Your task to perform on an android device: Go to battery settings Image 0: 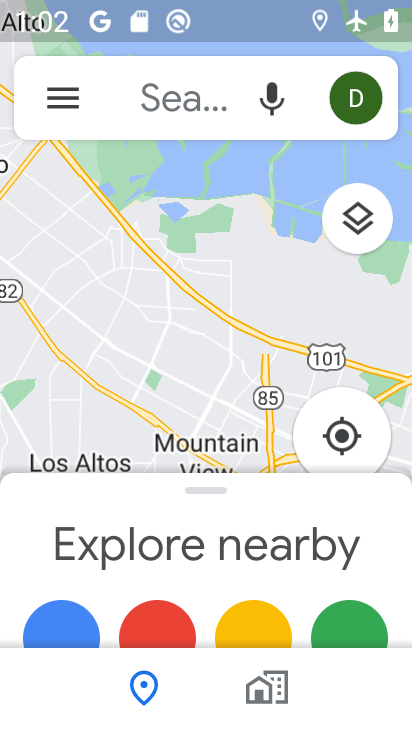
Step 0: press home button
Your task to perform on an android device: Go to battery settings Image 1: 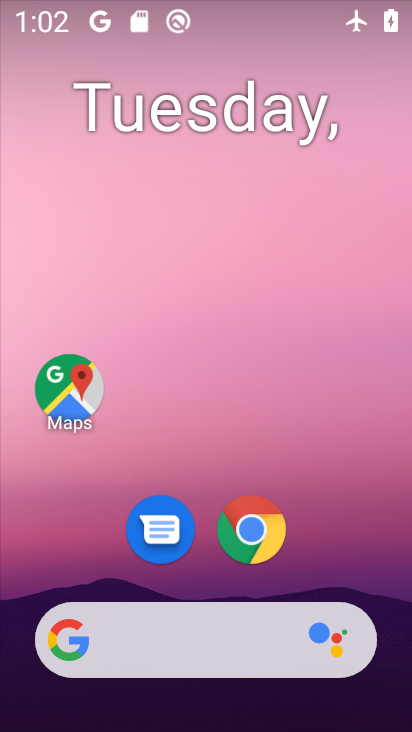
Step 1: drag from (340, 205) to (319, 114)
Your task to perform on an android device: Go to battery settings Image 2: 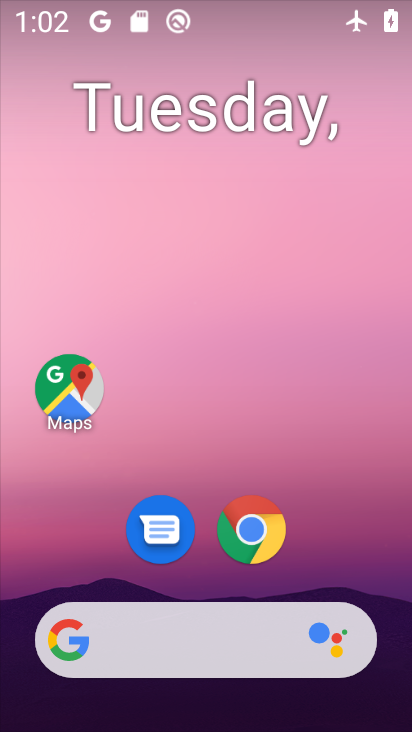
Step 2: drag from (379, 533) to (371, 60)
Your task to perform on an android device: Go to battery settings Image 3: 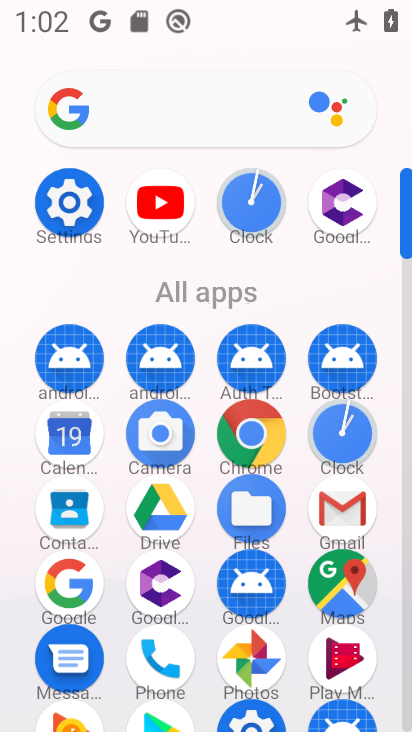
Step 3: click (78, 195)
Your task to perform on an android device: Go to battery settings Image 4: 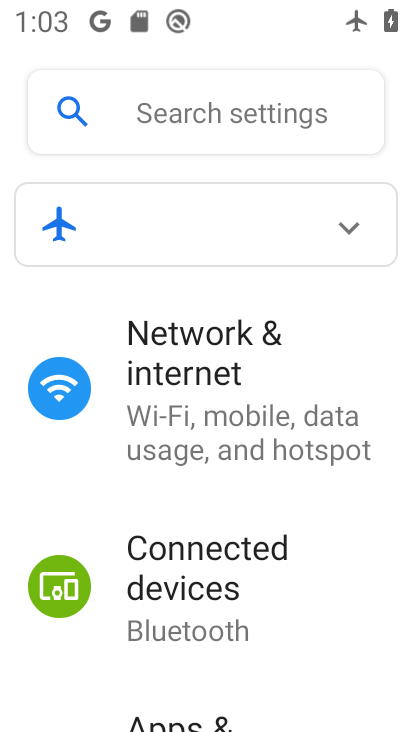
Step 4: click (335, 306)
Your task to perform on an android device: Go to battery settings Image 5: 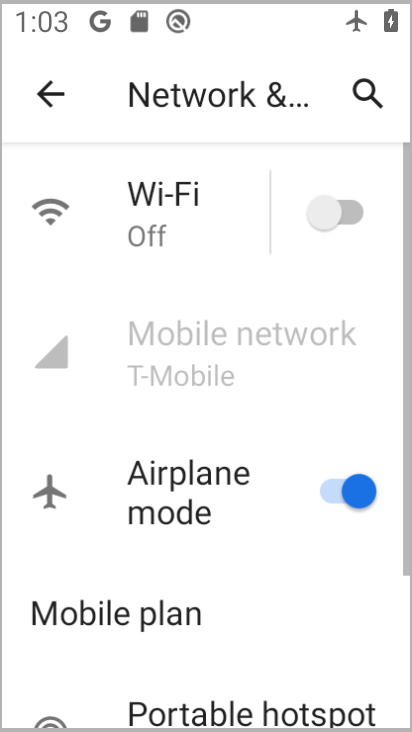
Step 5: drag from (312, 649) to (289, 208)
Your task to perform on an android device: Go to battery settings Image 6: 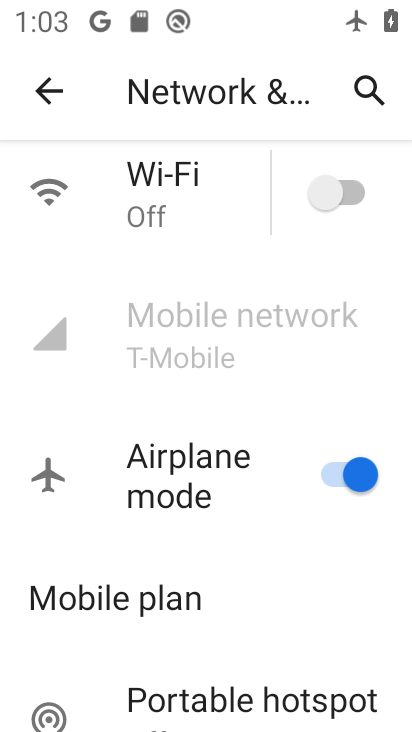
Step 6: click (48, 83)
Your task to perform on an android device: Go to battery settings Image 7: 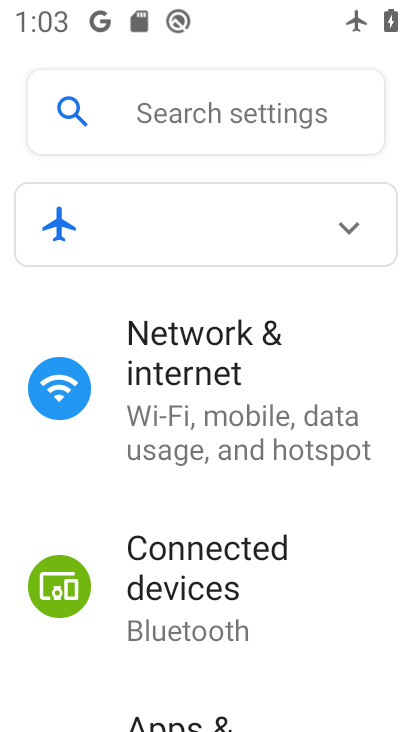
Step 7: drag from (321, 604) to (306, 288)
Your task to perform on an android device: Go to battery settings Image 8: 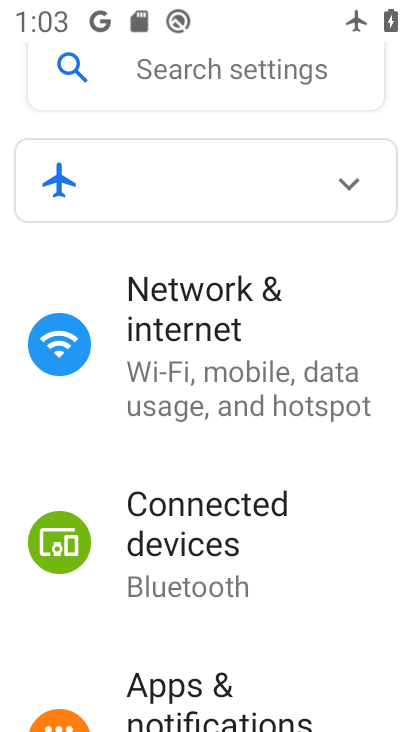
Step 8: drag from (315, 676) to (317, 247)
Your task to perform on an android device: Go to battery settings Image 9: 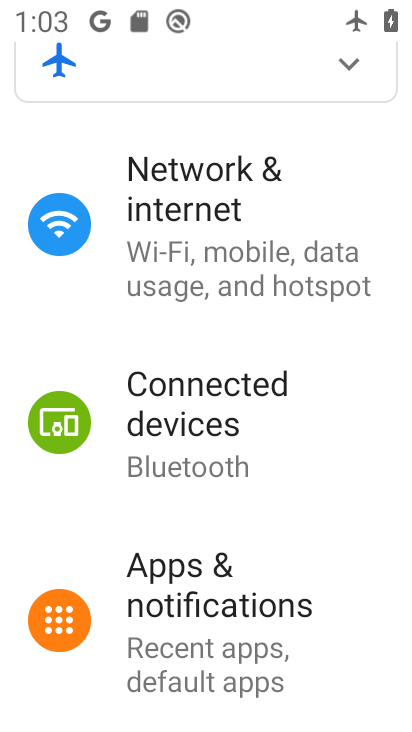
Step 9: drag from (313, 340) to (308, 224)
Your task to perform on an android device: Go to battery settings Image 10: 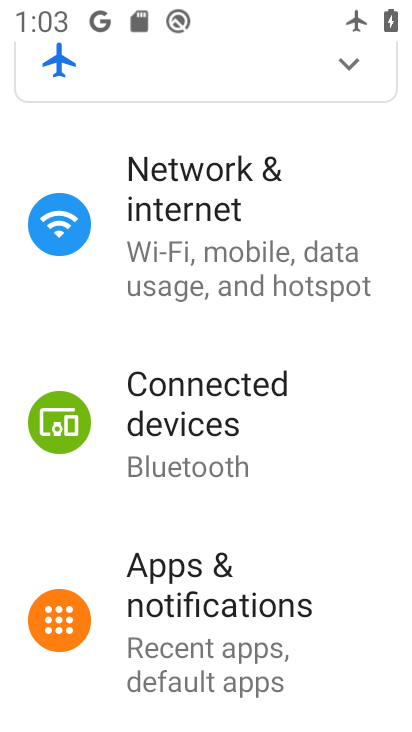
Step 10: drag from (349, 662) to (279, 202)
Your task to perform on an android device: Go to battery settings Image 11: 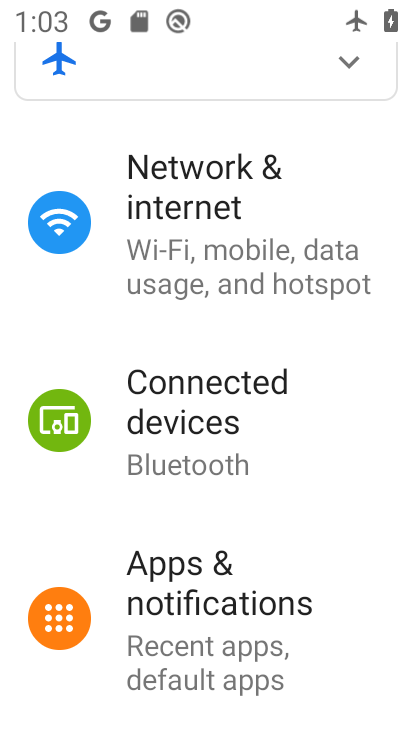
Step 11: drag from (330, 576) to (301, 235)
Your task to perform on an android device: Go to battery settings Image 12: 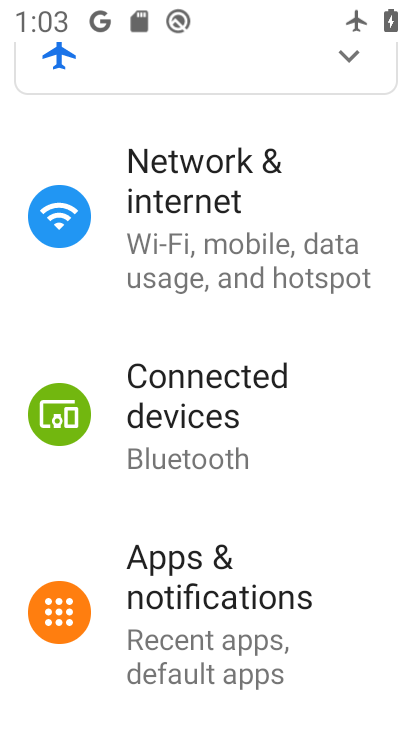
Step 12: drag from (281, 437) to (234, 205)
Your task to perform on an android device: Go to battery settings Image 13: 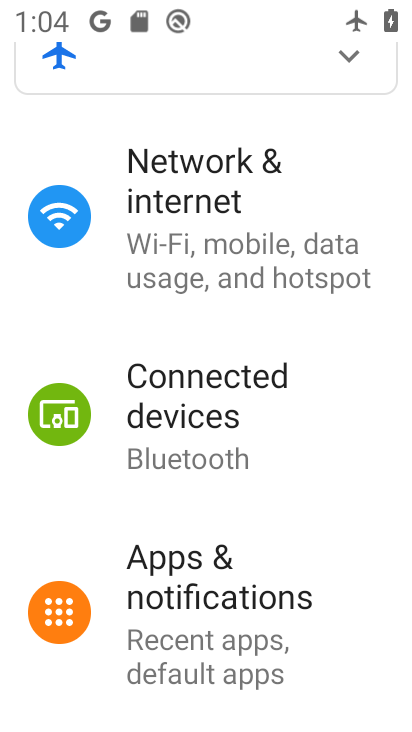
Step 13: drag from (322, 694) to (247, 217)
Your task to perform on an android device: Go to battery settings Image 14: 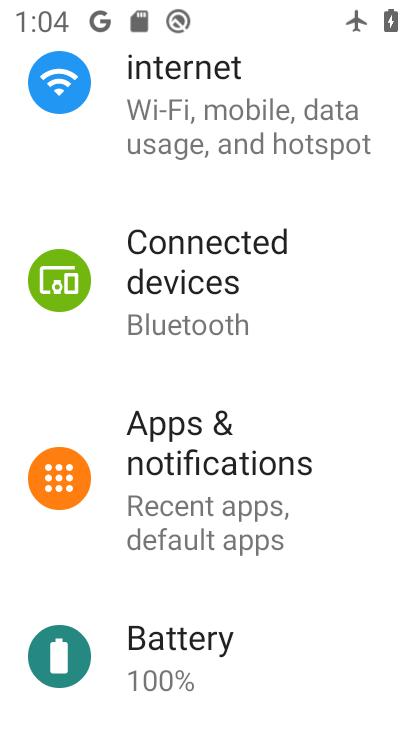
Step 14: drag from (386, 387) to (390, 224)
Your task to perform on an android device: Go to battery settings Image 15: 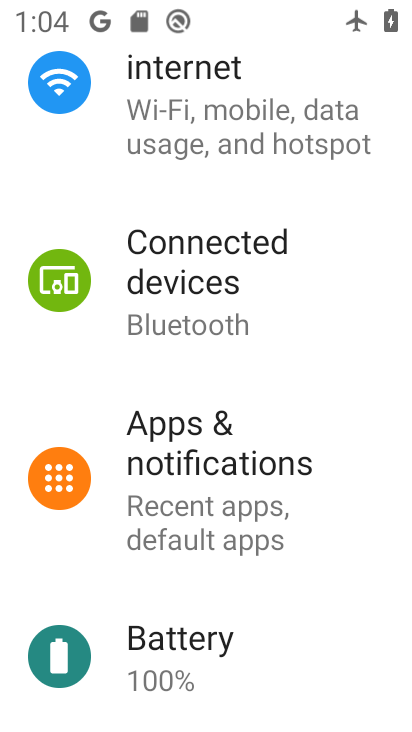
Step 15: click (167, 624)
Your task to perform on an android device: Go to battery settings Image 16: 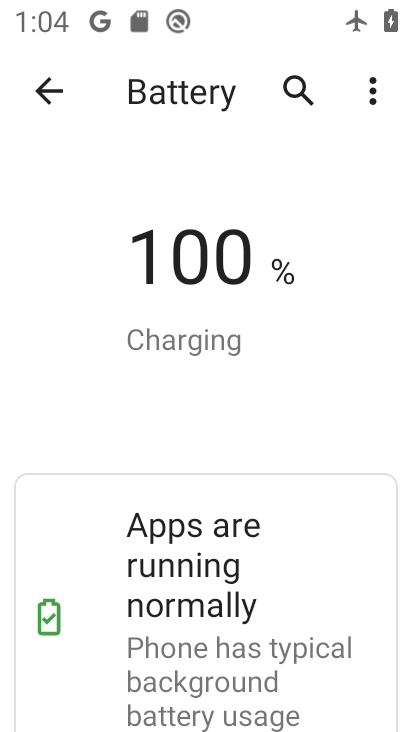
Step 16: task complete